Your task to perform on an android device: Show me recent news Image 0: 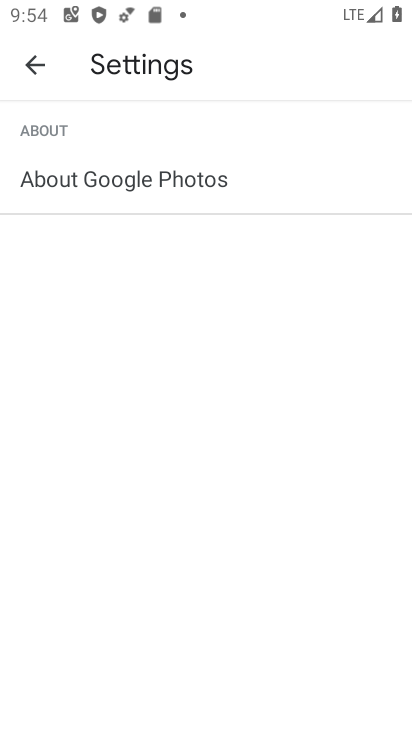
Step 0: press home button
Your task to perform on an android device: Show me recent news Image 1: 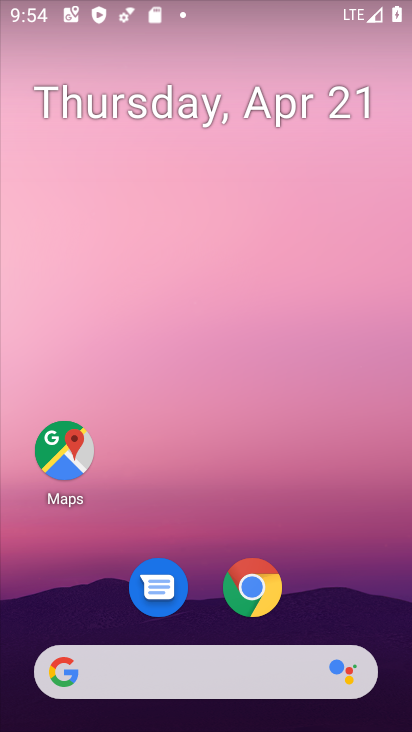
Step 1: drag from (9, 293) to (401, 302)
Your task to perform on an android device: Show me recent news Image 2: 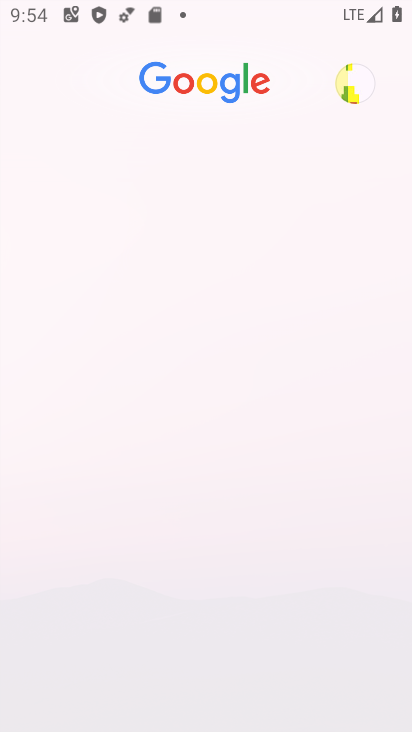
Step 2: drag from (218, 312) to (381, 313)
Your task to perform on an android device: Show me recent news Image 3: 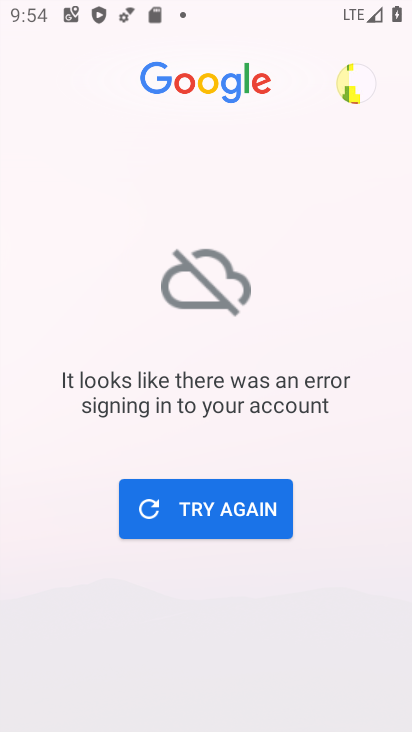
Step 3: click (237, 506)
Your task to perform on an android device: Show me recent news Image 4: 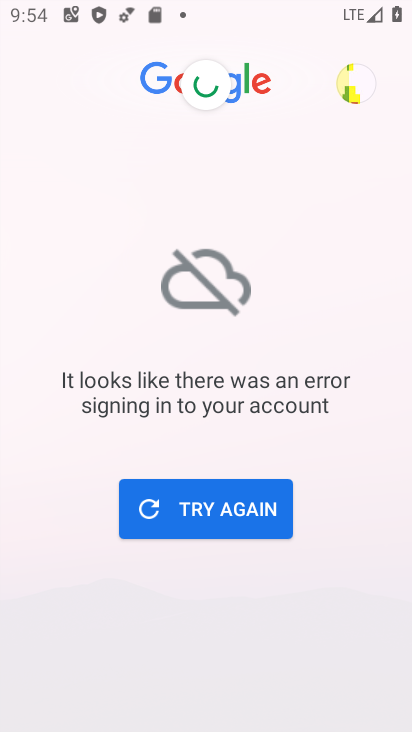
Step 4: task complete